Your task to perform on an android device: toggle wifi Image 0: 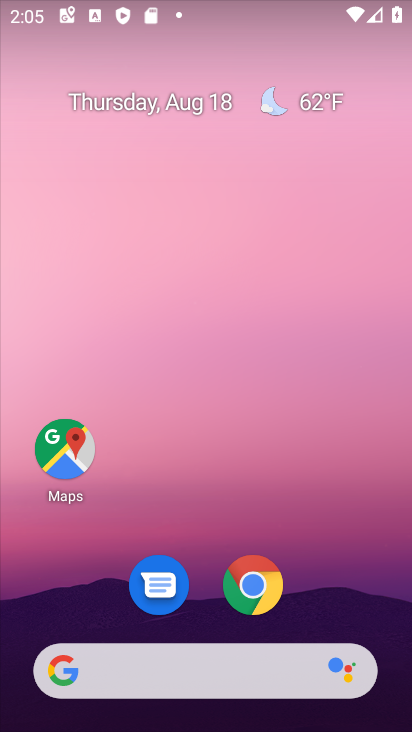
Step 0: drag from (326, 547) to (303, 2)
Your task to perform on an android device: toggle wifi Image 1: 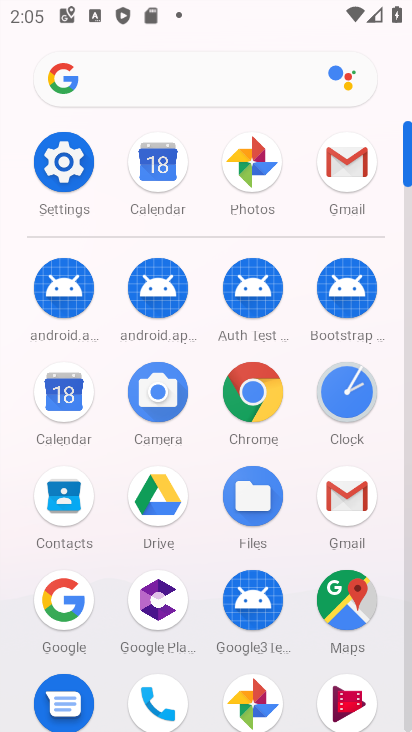
Step 1: click (61, 198)
Your task to perform on an android device: toggle wifi Image 2: 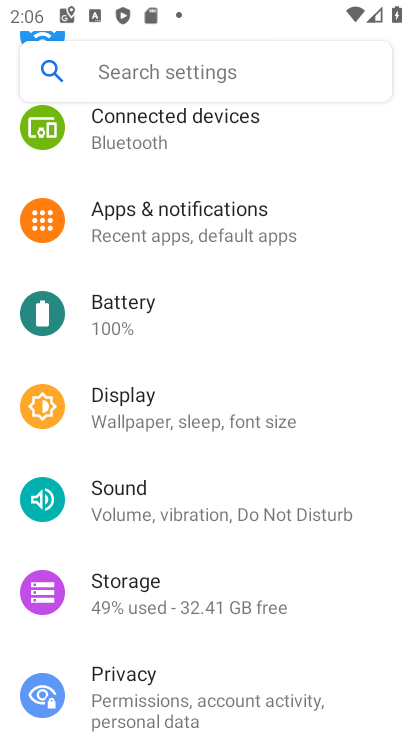
Step 2: drag from (230, 162) to (239, 466)
Your task to perform on an android device: toggle wifi Image 3: 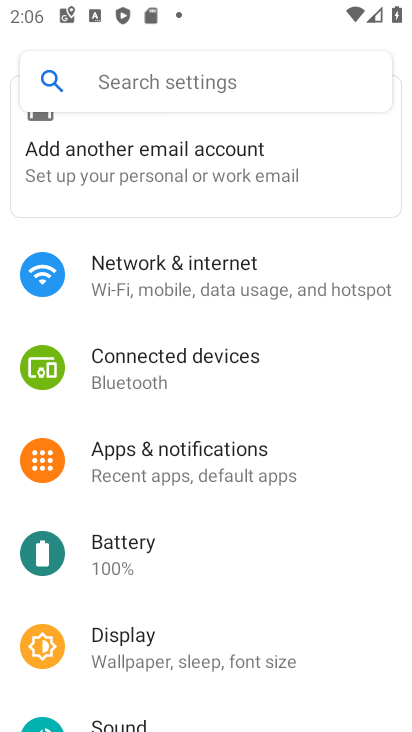
Step 3: click (253, 282)
Your task to perform on an android device: toggle wifi Image 4: 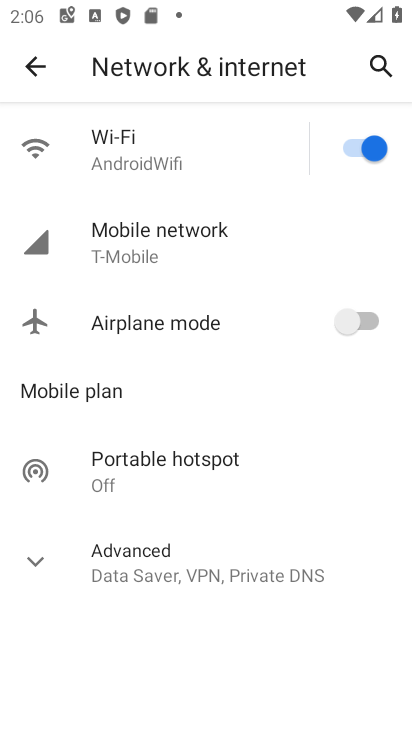
Step 4: click (343, 144)
Your task to perform on an android device: toggle wifi Image 5: 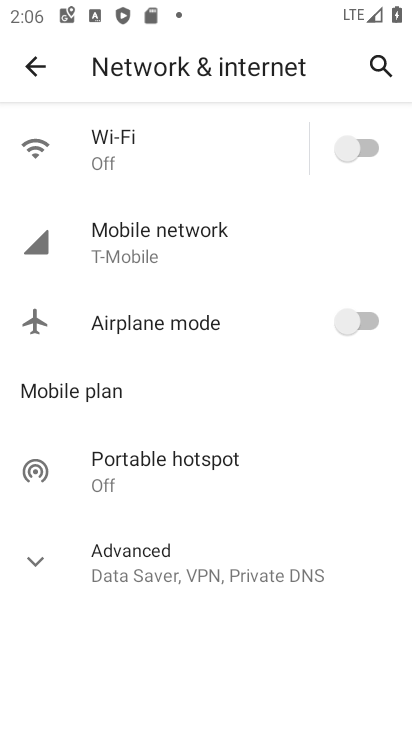
Step 5: task complete